Your task to perform on an android device: open chrome privacy settings Image 0: 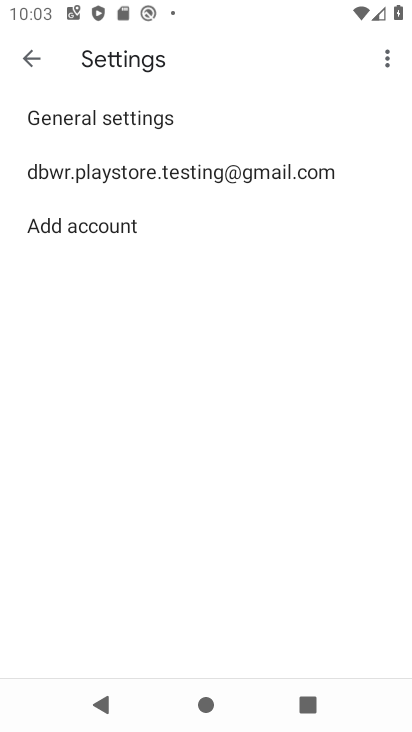
Step 0: press back button
Your task to perform on an android device: open chrome privacy settings Image 1: 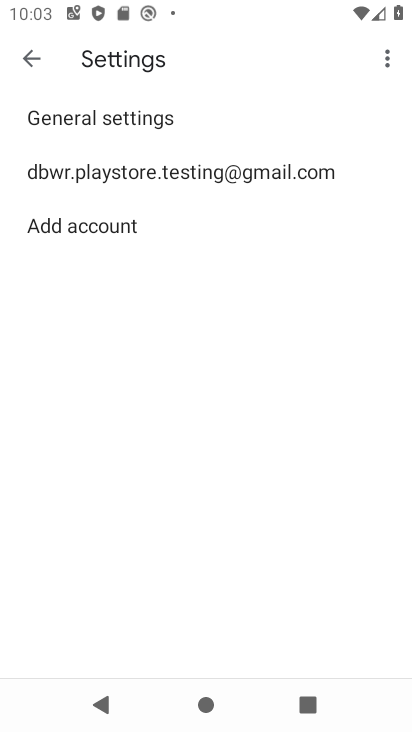
Step 1: press home button
Your task to perform on an android device: open chrome privacy settings Image 2: 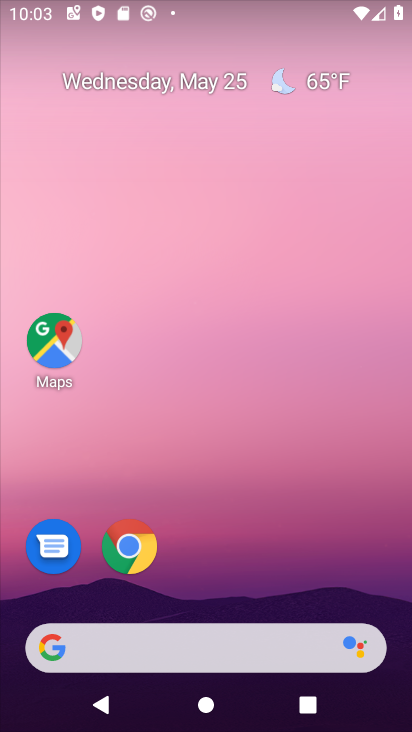
Step 2: drag from (291, 565) to (292, 12)
Your task to perform on an android device: open chrome privacy settings Image 3: 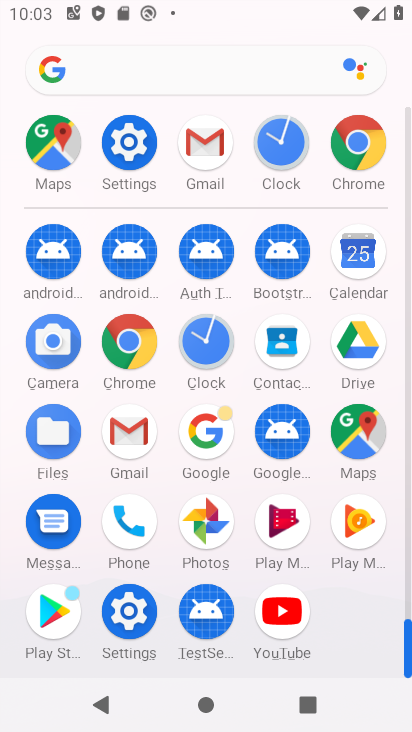
Step 3: click (352, 135)
Your task to perform on an android device: open chrome privacy settings Image 4: 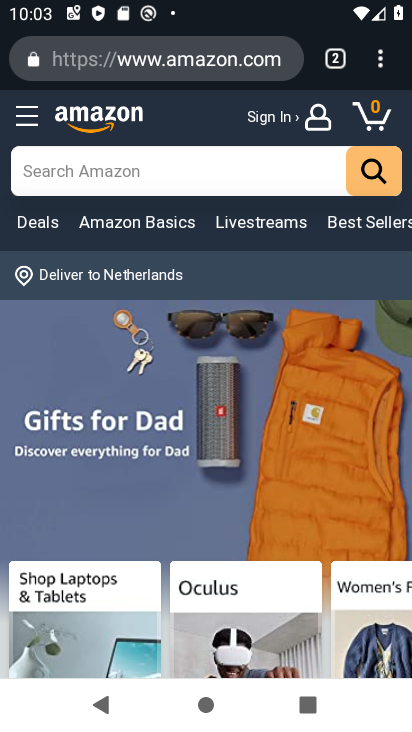
Step 4: drag from (382, 63) to (191, 563)
Your task to perform on an android device: open chrome privacy settings Image 5: 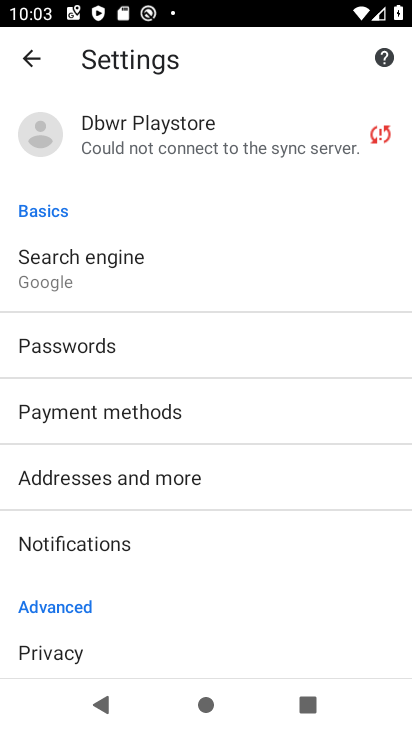
Step 5: drag from (210, 590) to (217, 340)
Your task to perform on an android device: open chrome privacy settings Image 6: 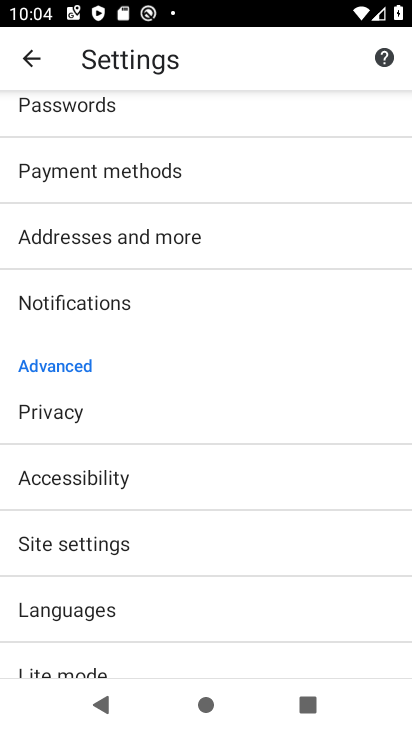
Step 6: drag from (238, 593) to (231, 157)
Your task to perform on an android device: open chrome privacy settings Image 7: 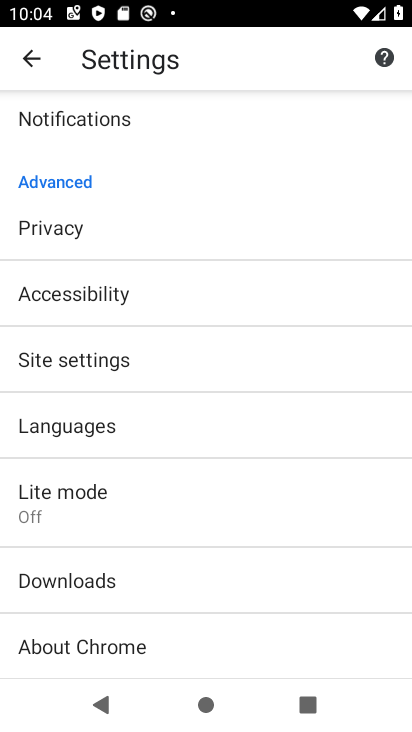
Step 7: drag from (228, 173) to (228, 651)
Your task to perform on an android device: open chrome privacy settings Image 8: 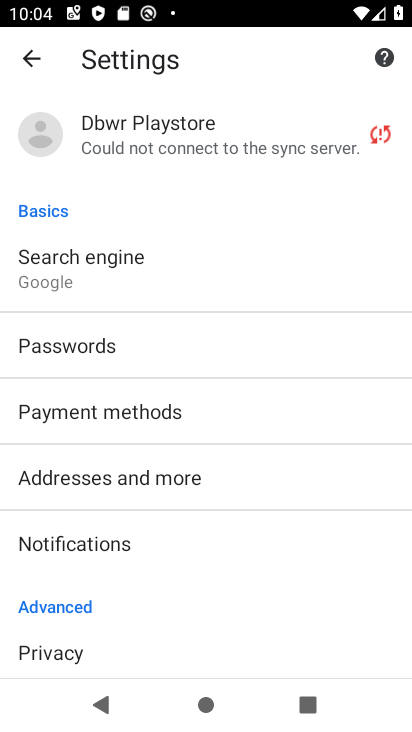
Step 8: drag from (223, 247) to (216, 570)
Your task to perform on an android device: open chrome privacy settings Image 9: 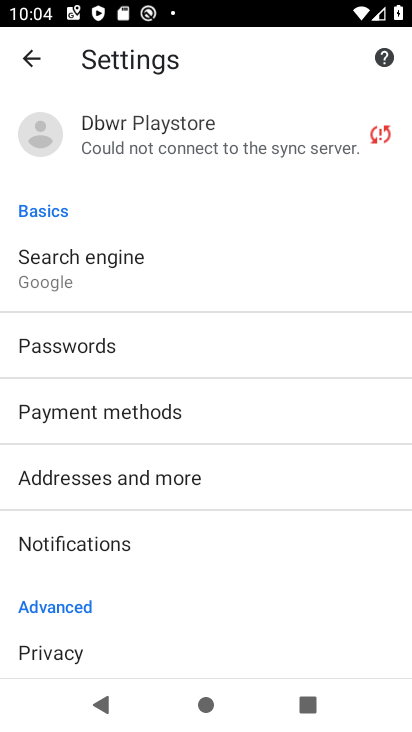
Step 9: drag from (214, 577) to (246, 163)
Your task to perform on an android device: open chrome privacy settings Image 10: 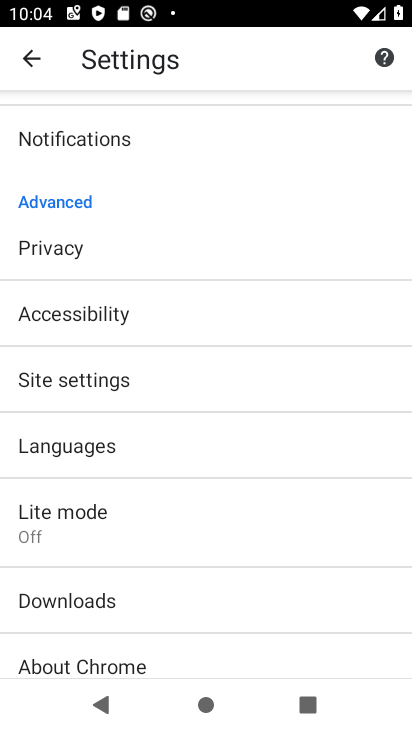
Step 10: drag from (207, 593) to (223, 195)
Your task to perform on an android device: open chrome privacy settings Image 11: 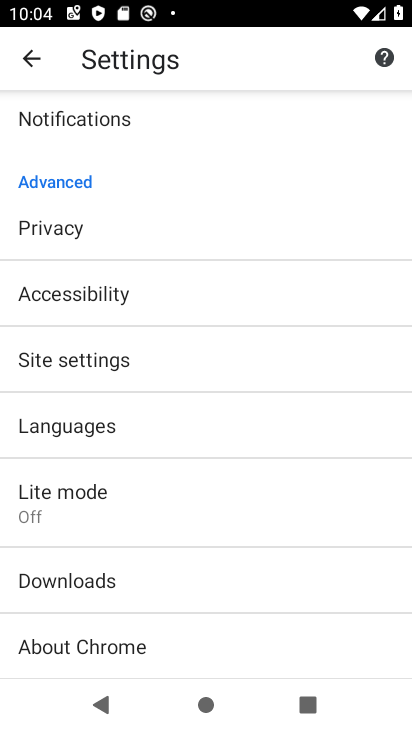
Step 11: drag from (217, 590) to (243, 230)
Your task to perform on an android device: open chrome privacy settings Image 12: 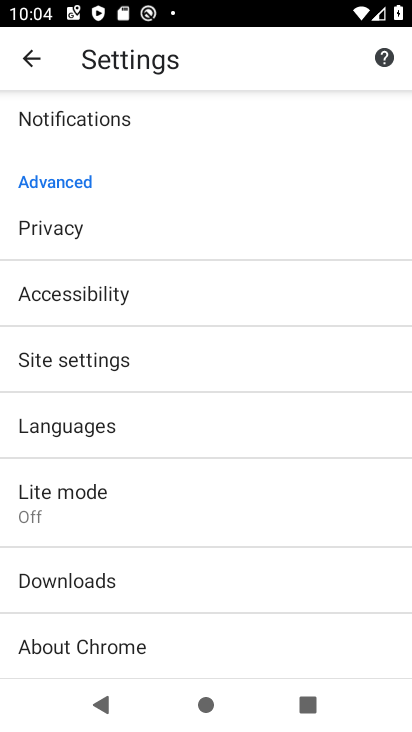
Step 12: click (121, 223)
Your task to perform on an android device: open chrome privacy settings Image 13: 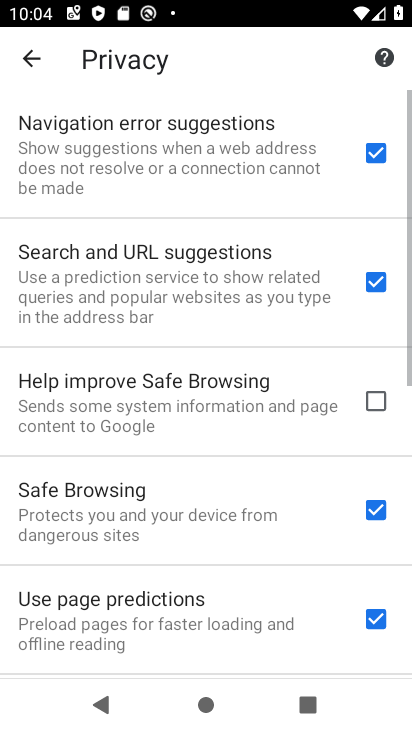
Step 13: drag from (206, 604) to (241, 151)
Your task to perform on an android device: open chrome privacy settings Image 14: 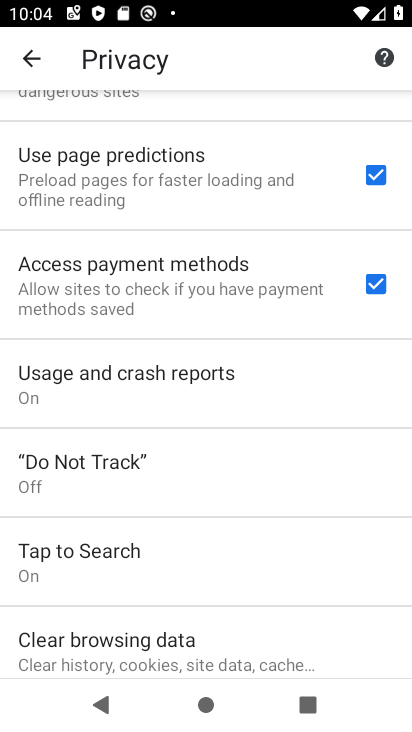
Step 14: click (255, 140)
Your task to perform on an android device: open chrome privacy settings Image 15: 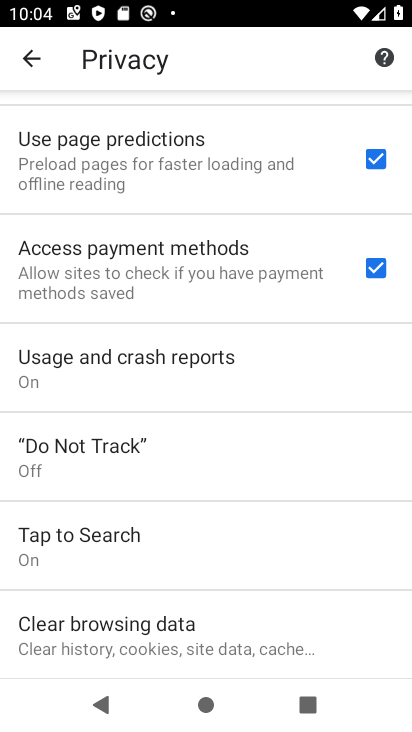
Step 15: task complete